Your task to perform on an android device: open app "Google Home" (install if not already installed) Image 0: 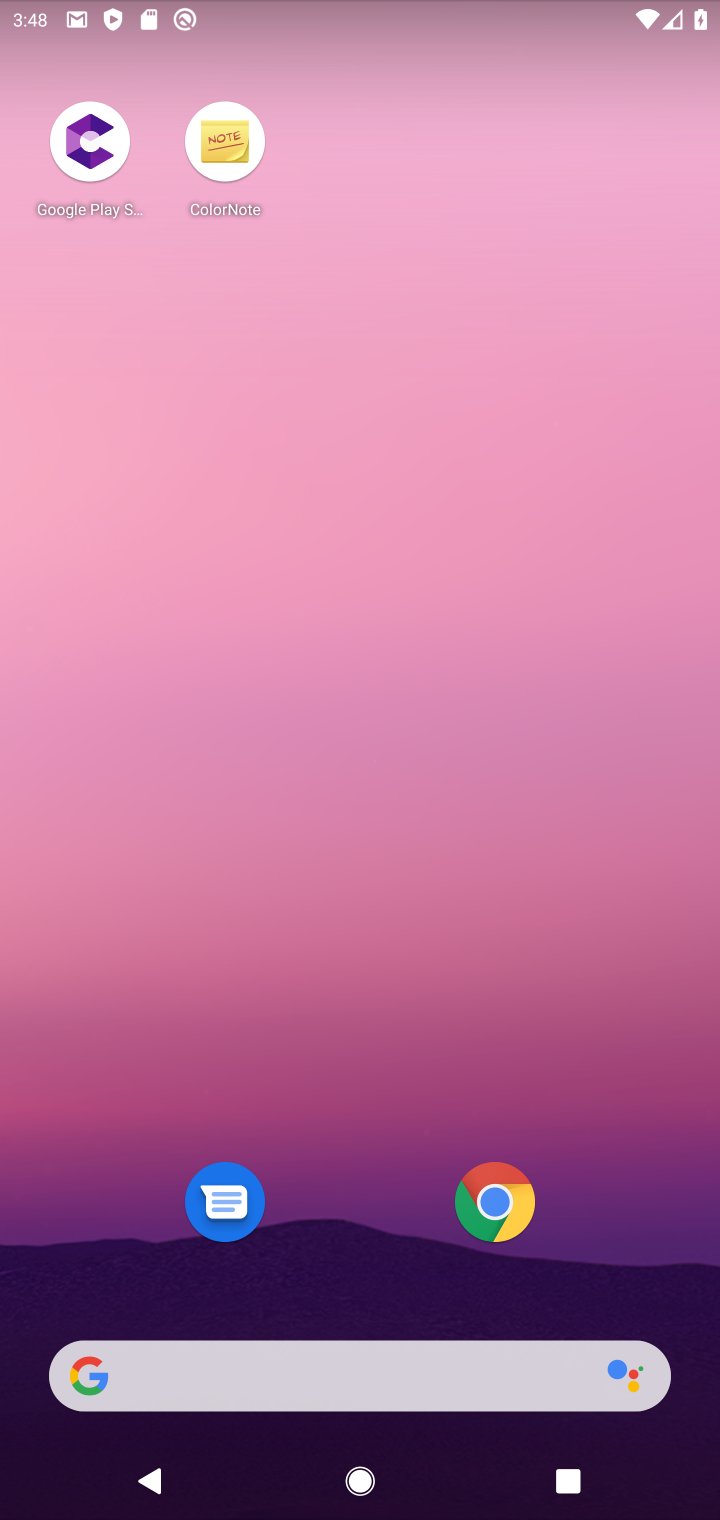
Step 0: drag from (380, 1210) to (522, 0)
Your task to perform on an android device: open app "Google Home" (install if not already installed) Image 1: 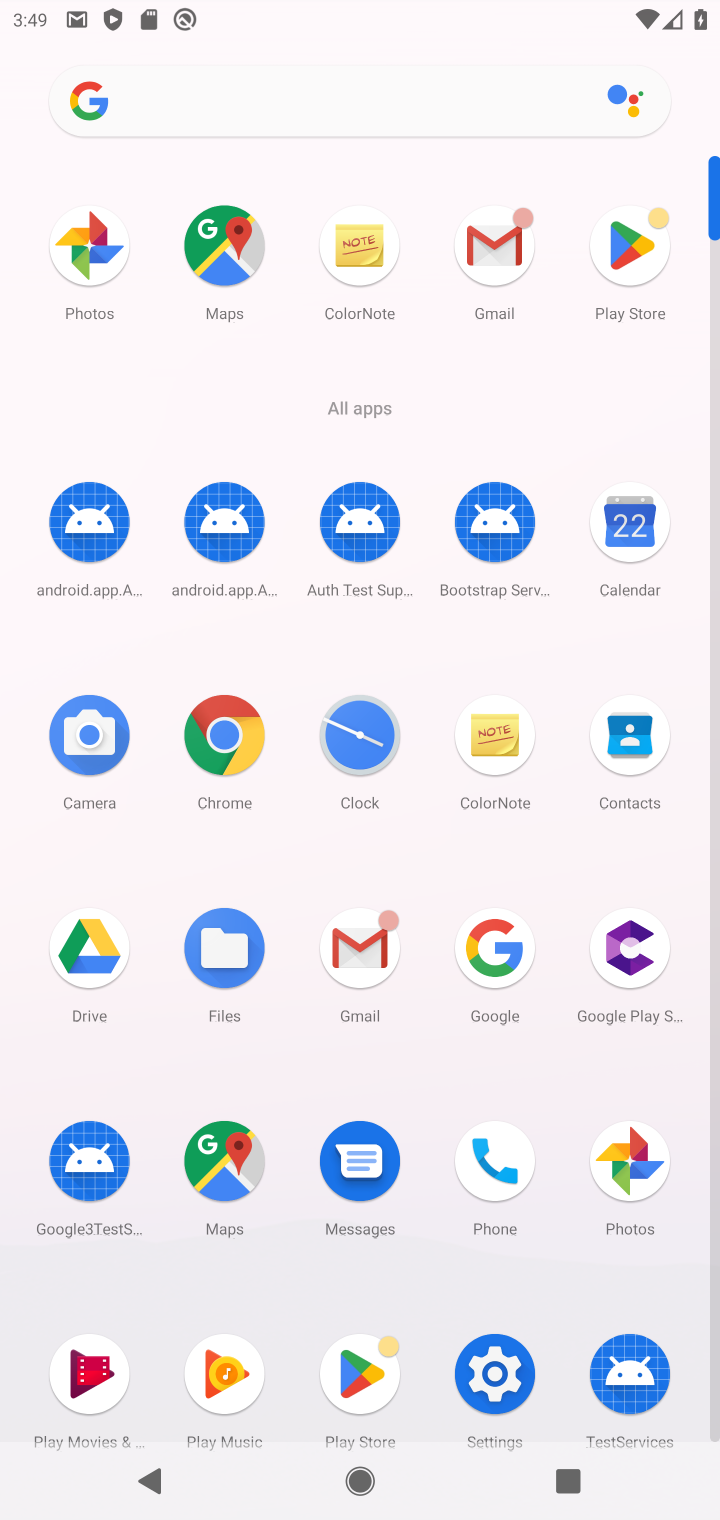
Step 1: click (644, 251)
Your task to perform on an android device: open app "Google Home" (install if not already installed) Image 2: 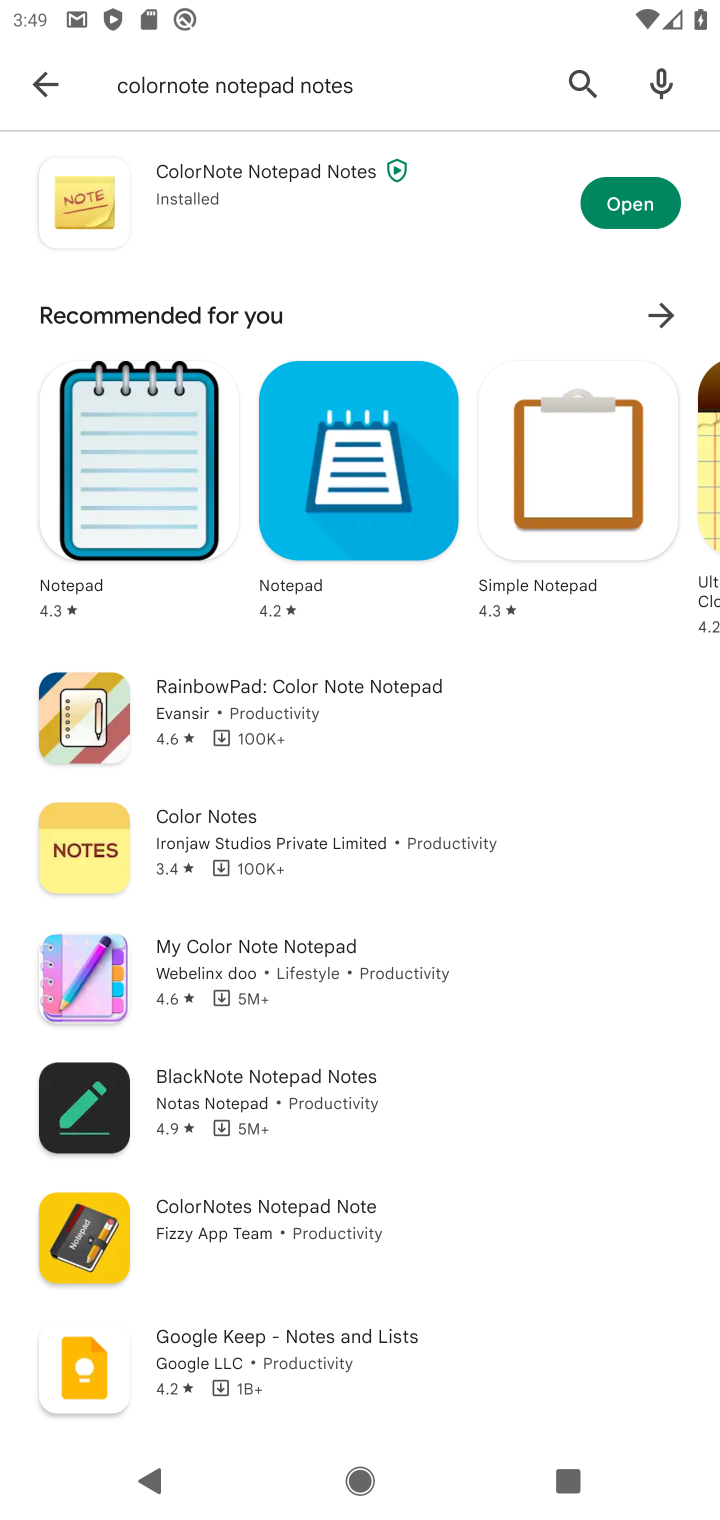
Step 2: click (372, 96)
Your task to perform on an android device: open app "Google Home" (install if not already installed) Image 3: 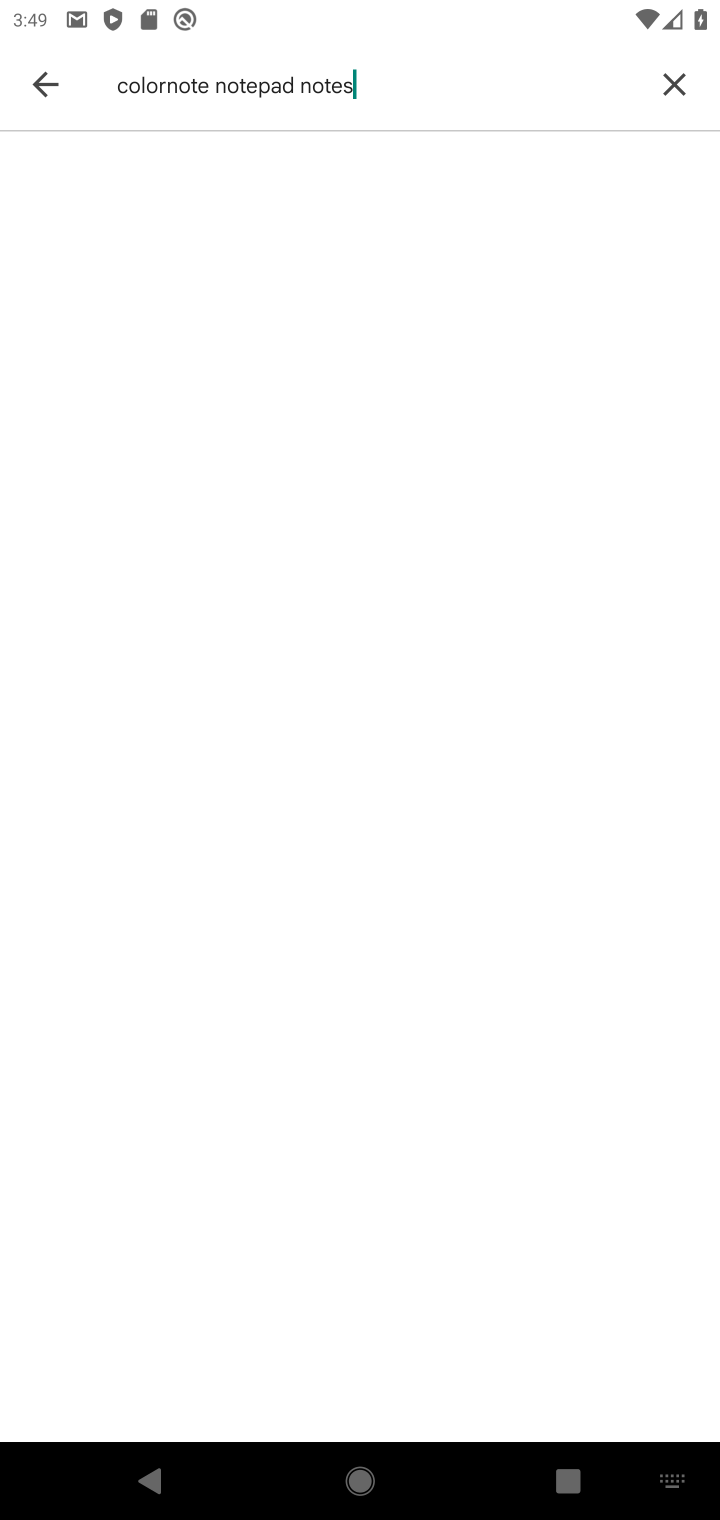
Step 3: click (655, 71)
Your task to perform on an android device: open app "Google Home" (install if not already installed) Image 4: 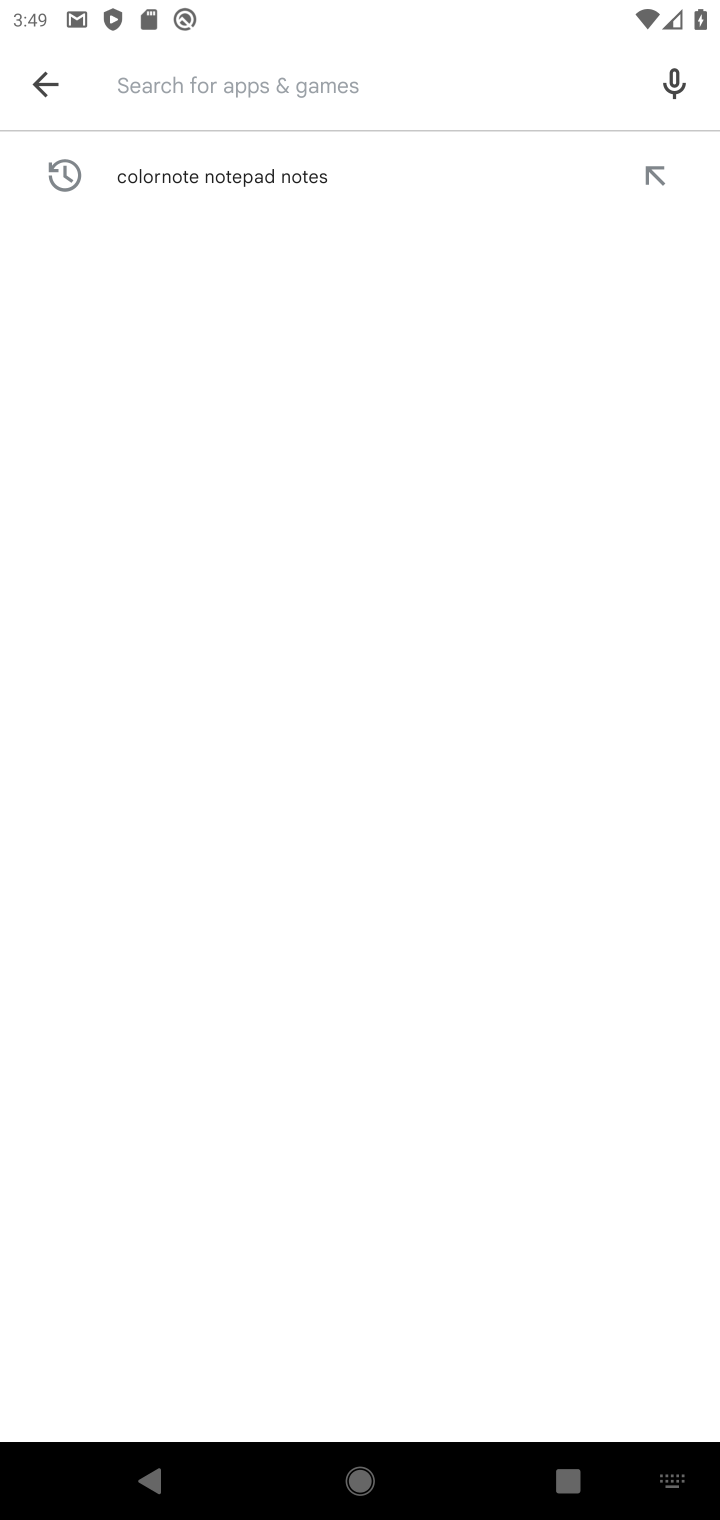
Step 4: type "google home"
Your task to perform on an android device: open app "Google Home" (install if not already installed) Image 5: 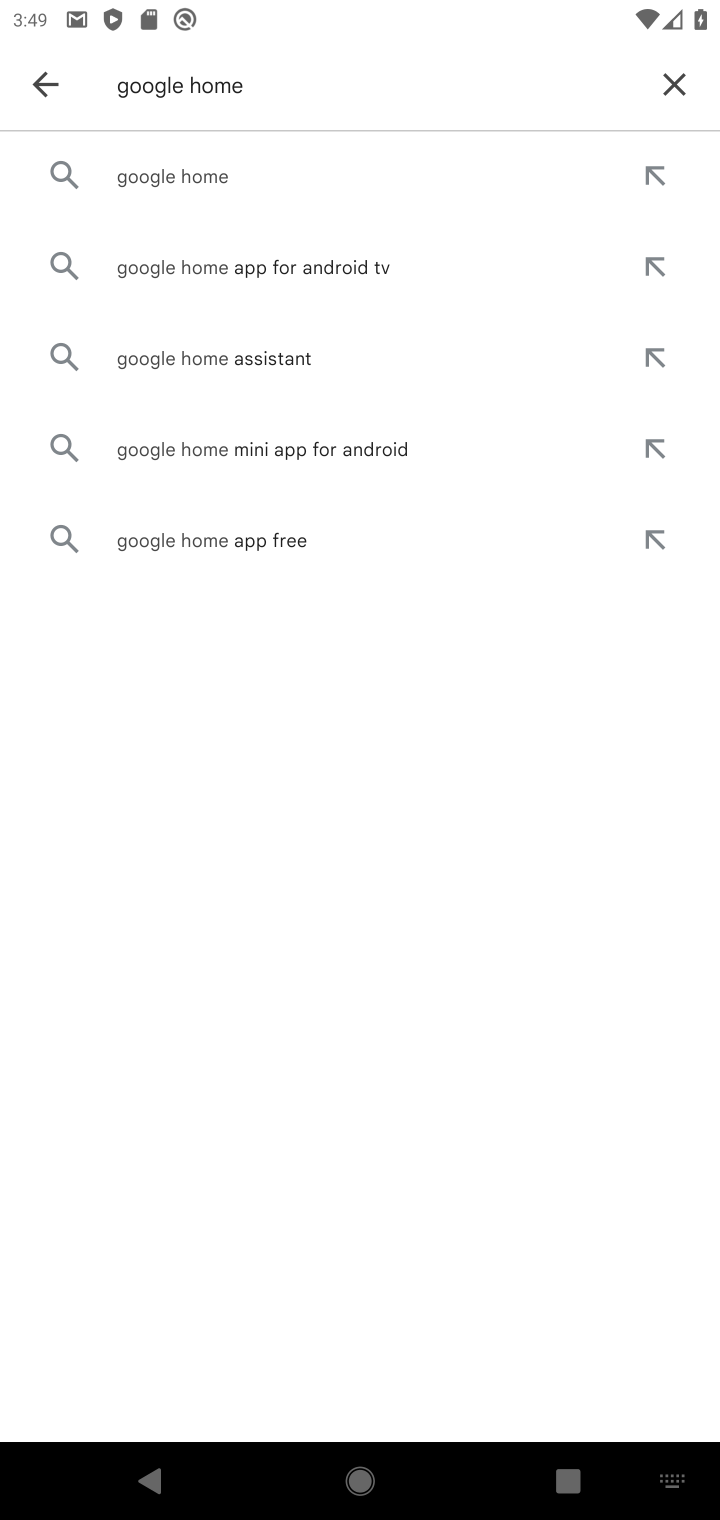
Step 5: click (182, 188)
Your task to perform on an android device: open app "Google Home" (install if not already installed) Image 6: 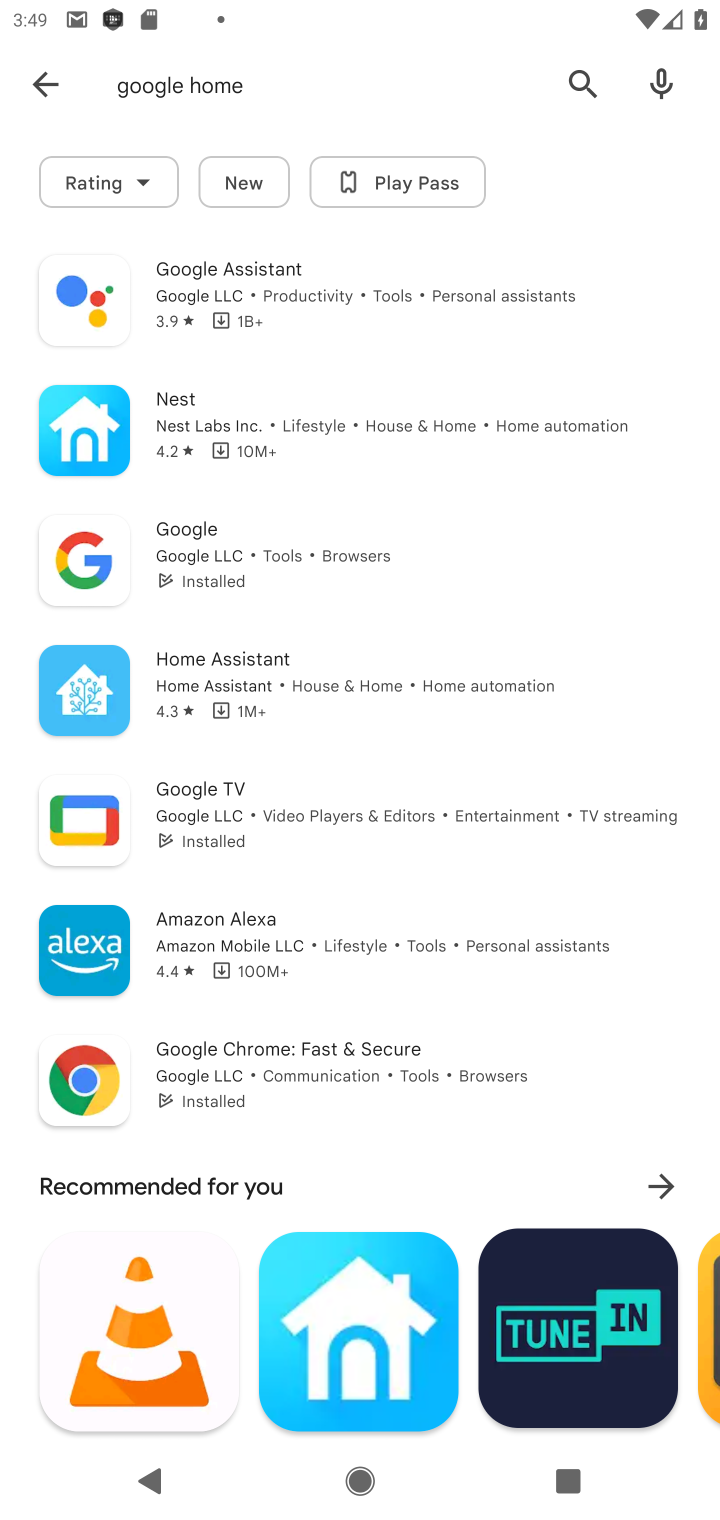
Step 6: task complete